Your task to perform on an android device: toggle priority inbox in the gmail app Image 0: 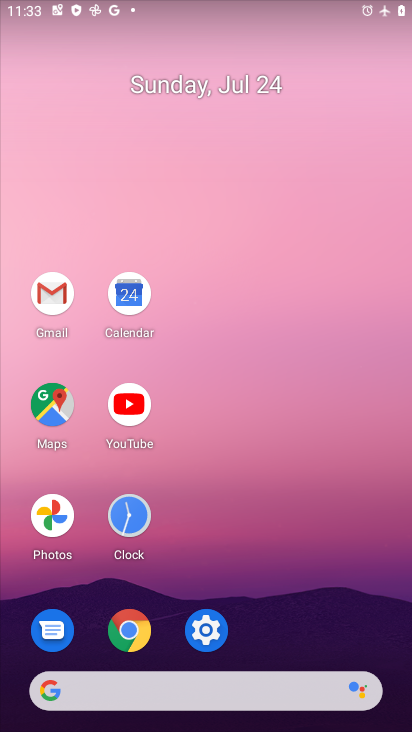
Step 0: click (46, 291)
Your task to perform on an android device: toggle priority inbox in the gmail app Image 1: 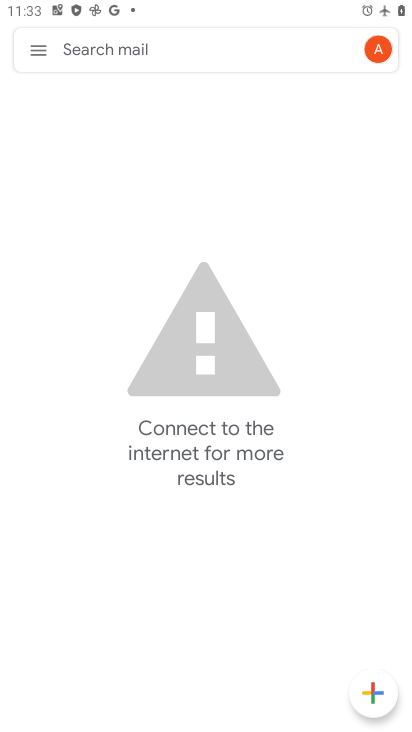
Step 1: click (32, 50)
Your task to perform on an android device: toggle priority inbox in the gmail app Image 2: 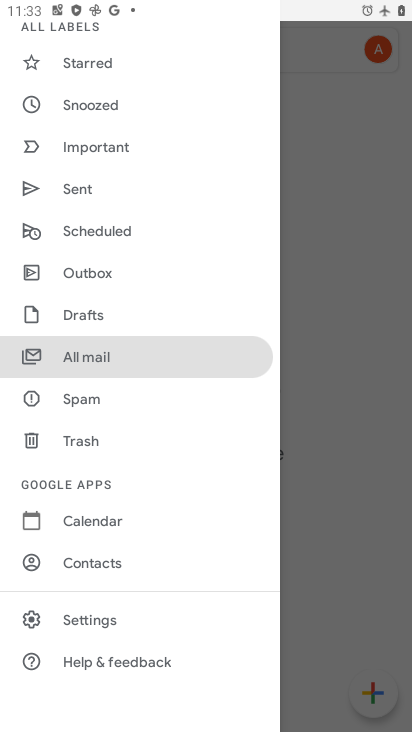
Step 2: click (83, 618)
Your task to perform on an android device: toggle priority inbox in the gmail app Image 3: 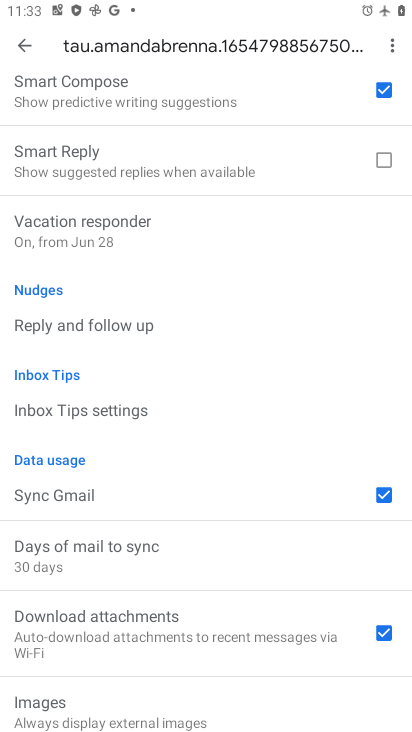
Step 3: drag from (131, 124) to (160, 554)
Your task to perform on an android device: toggle priority inbox in the gmail app Image 4: 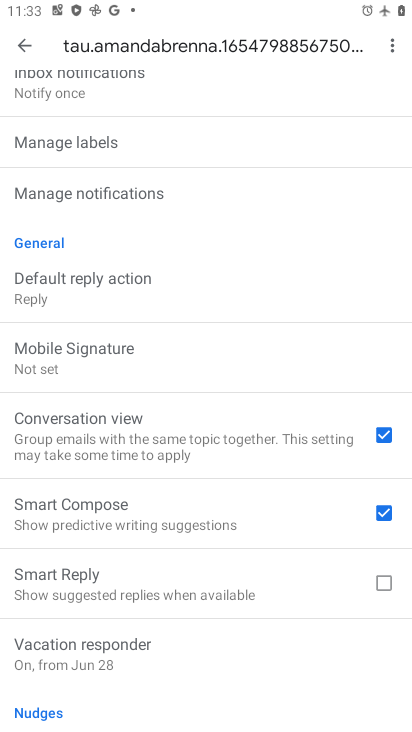
Step 4: drag from (199, 225) to (278, 713)
Your task to perform on an android device: toggle priority inbox in the gmail app Image 5: 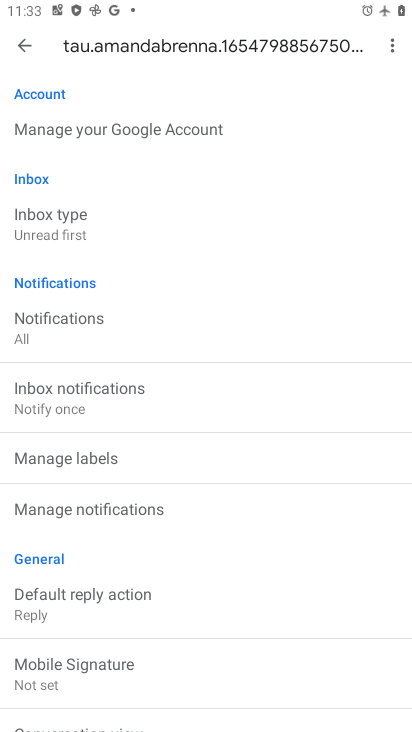
Step 5: click (41, 214)
Your task to perform on an android device: toggle priority inbox in the gmail app Image 6: 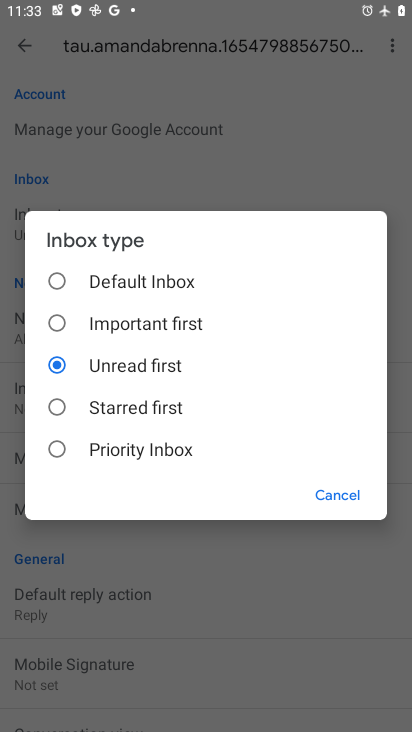
Step 6: click (49, 444)
Your task to perform on an android device: toggle priority inbox in the gmail app Image 7: 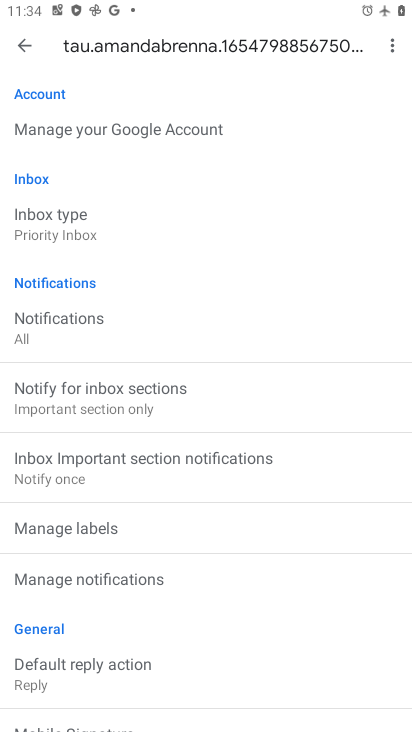
Step 7: task complete